Your task to perform on an android device: turn off airplane mode Image 0: 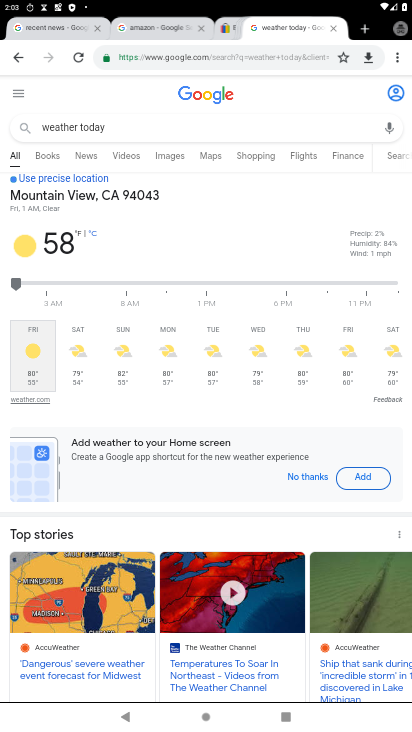
Step 0: press home button
Your task to perform on an android device: turn off airplane mode Image 1: 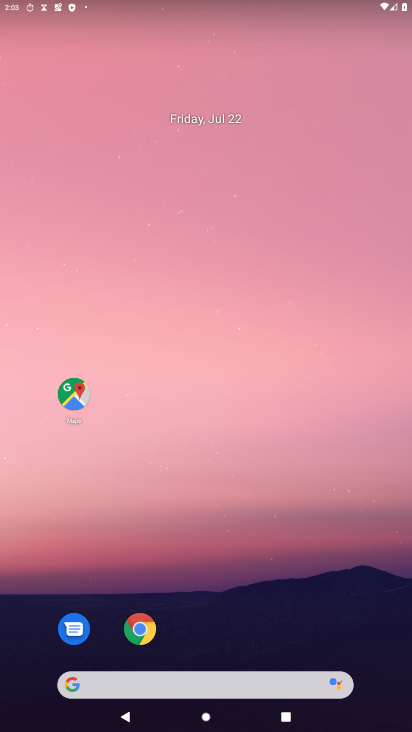
Step 1: drag from (253, 616) to (214, 11)
Your task to perform on an android device: turn off airplane mode Image 2: 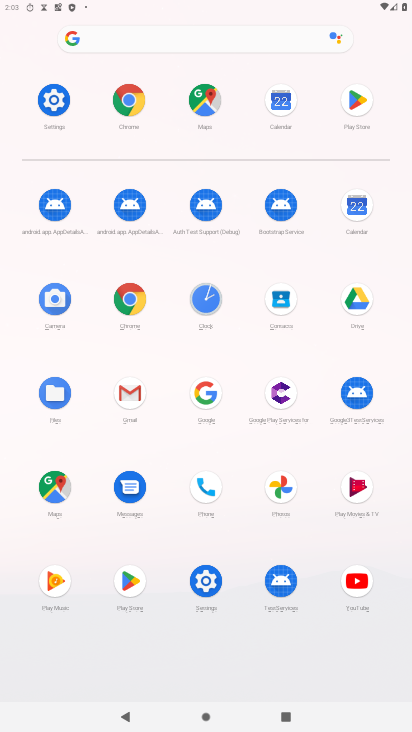
Step 2: click (208, 572)
Your task to perform on an android device: turn off airplane mode Image 3: 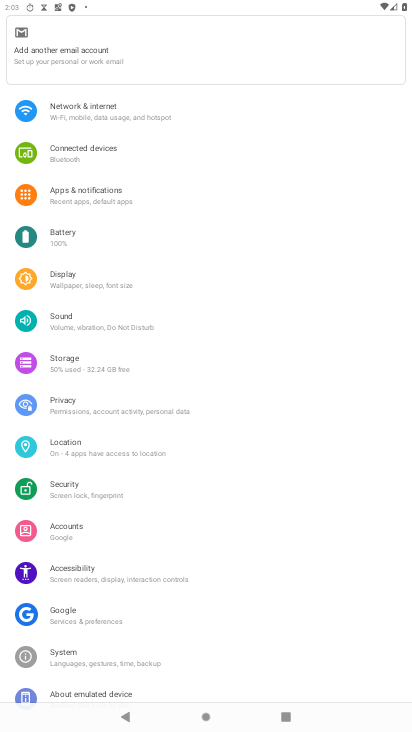
Step 3: click (127, 110)
Your task to perform on an android device: turn off airplane mode Image 4: 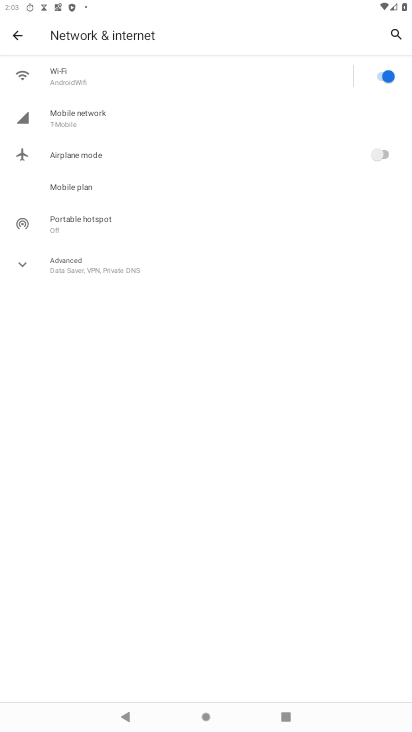
Step 4: task complete